Your task to perform on an android device: When is my next meeting? Image 0: 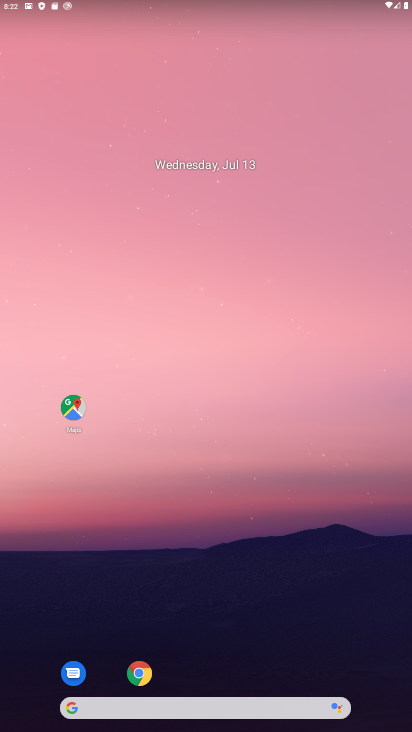
Step 0: drag from (202, 708) to (190, 246)
Your task to perform on an android device: When is my next meeting? Image 1: 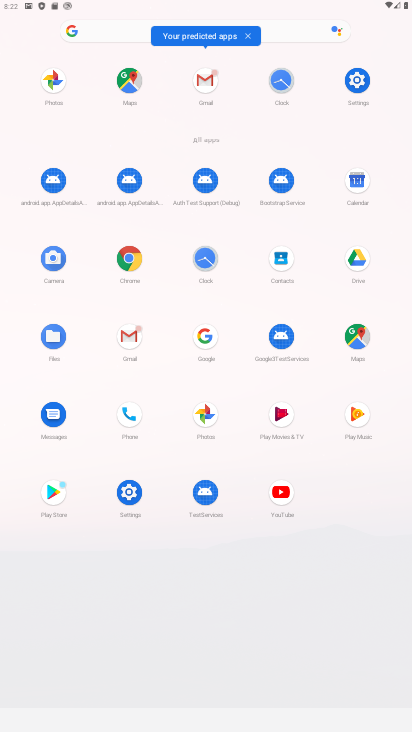
Step 1: click (359, 178)
Your task to perform on an android device: When is my next meeting? Image 2: 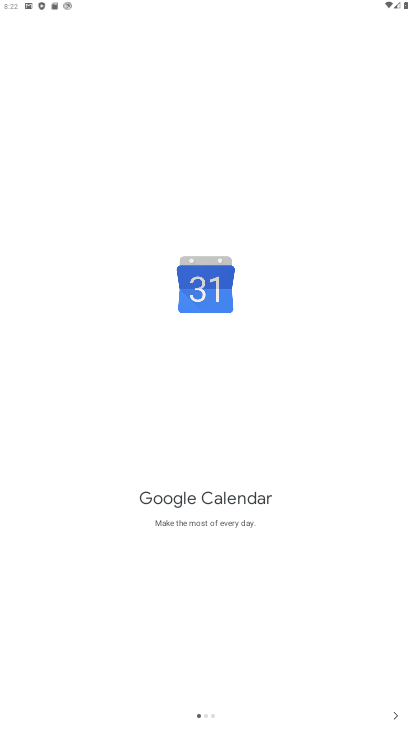
Step 2: click (393, 715)
Your task to perform on an android device: When is my next meeting? Image 3: 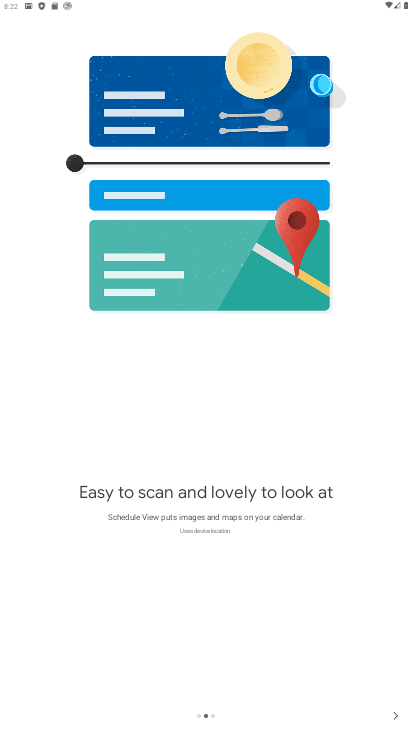
Step 3: click (393, 715)
Your task to perform on an android device: When is my next meeting? Image 4: 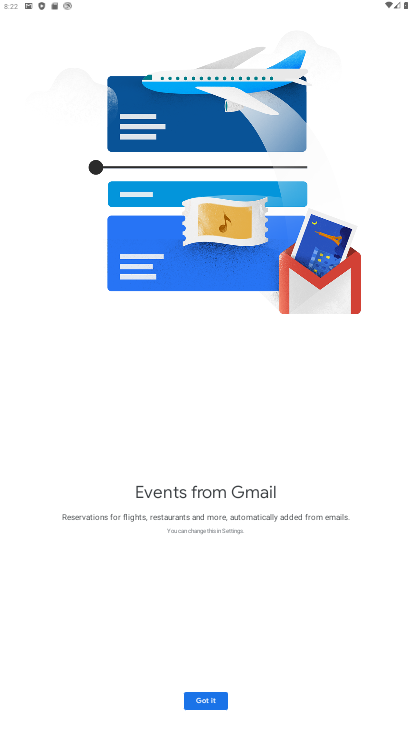
Step 4: click (197, 696)
Your task to perform on an android device: When is my next meeting? Image 5: 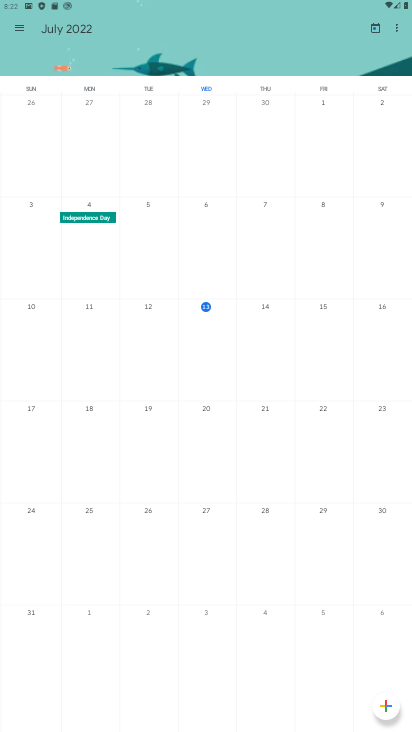
Step 5: click (206, 306)
Your task to perform on an android device: When is my next meeting? Image 6: 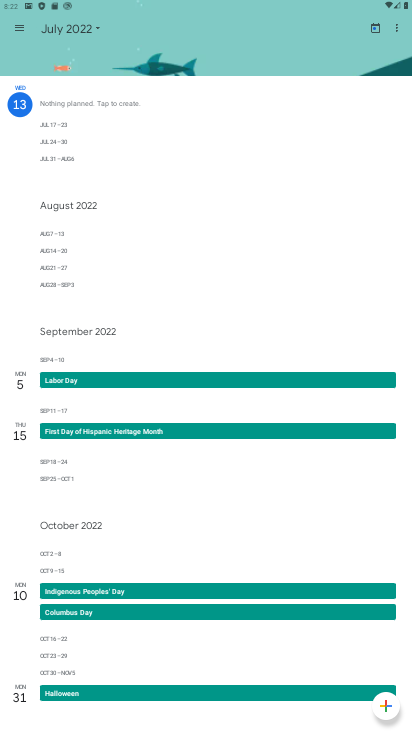
Step 6: click (78, 28)
Your task to perform on an android device: When is my next meeting? Image 7: 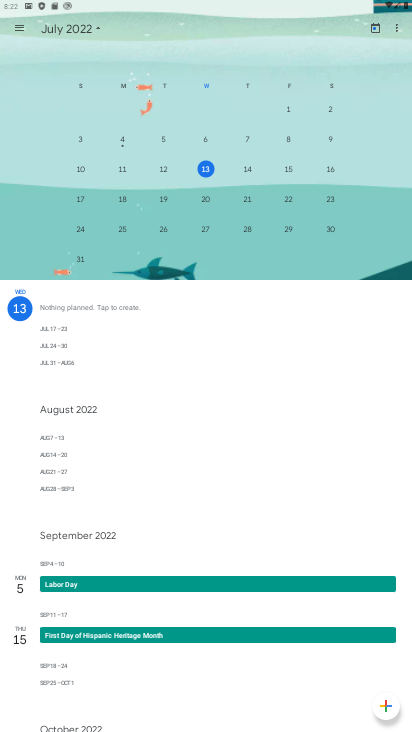
Step 7: click (249, 168)
Your task to perform on an android device: When is my next meeting? Image 8: 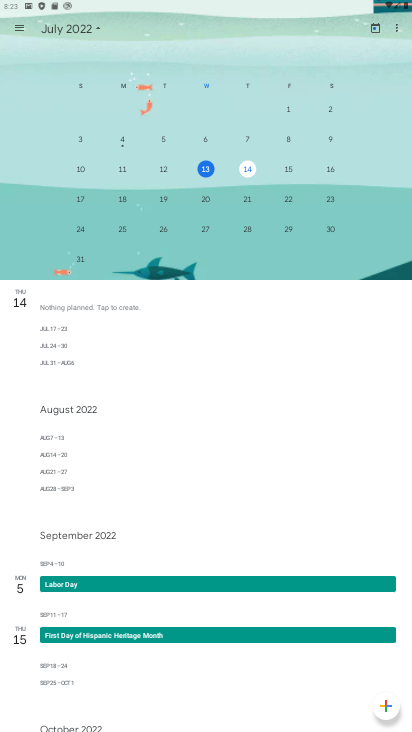
Step 8: task complete